Your task to perform on an android device: turn smart compose on in the gmail app Image 0: 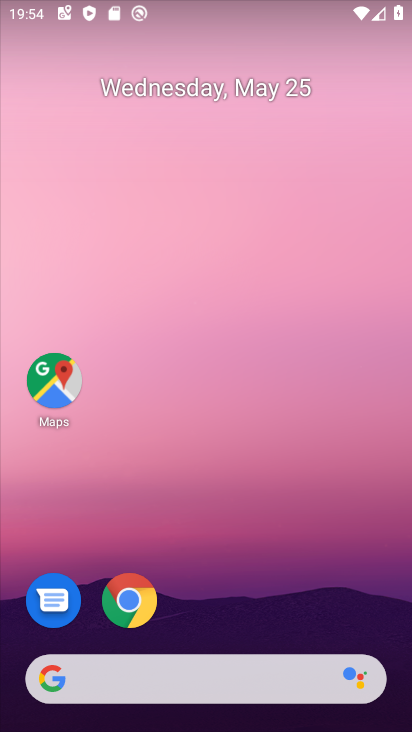
Step 0: drag from (248, 486) to (251, 147)
Your task to perform on an android device: turn smart compose on in the gmail app Image 1: 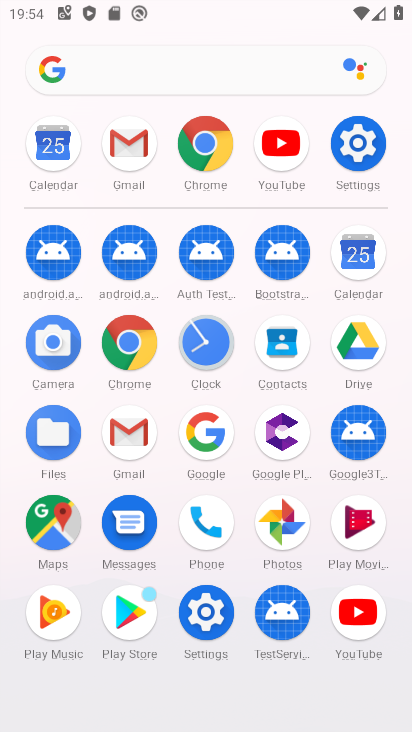
Step 1: click (129, 157)
Your task to perform on an android device: turn smart compose on in the gmail app Image 2: 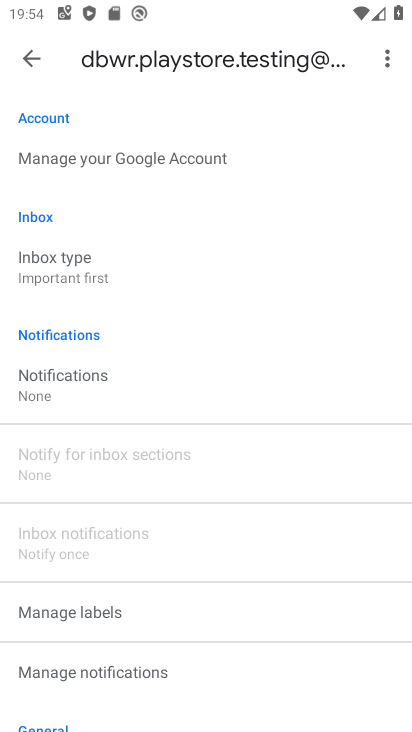
Step 2: task complete